Your task to perform on an android device: Show me the alarms in the clock app Image 0: 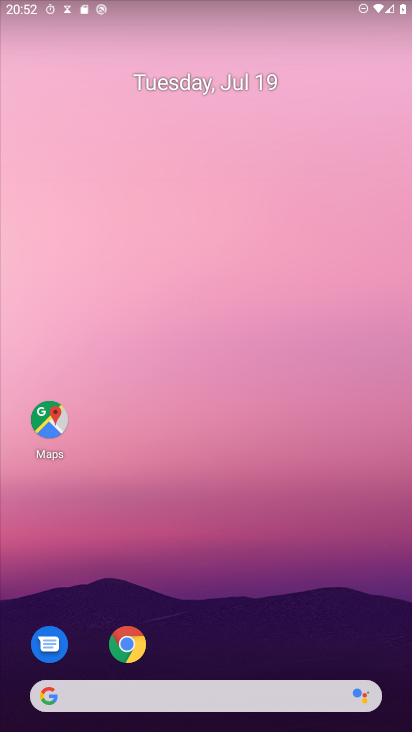
Step 0: drag from (18, 708) to (165, 191)
Your task to perform on an android device: Show me the alarms in the clock app Image 1: 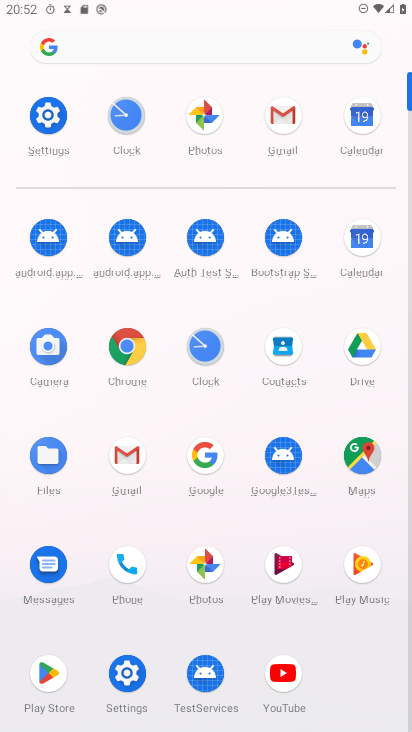
Step 1: click (209, 349)
Your task to perform on an android device: Show me the alarms in the clock app Image 2: 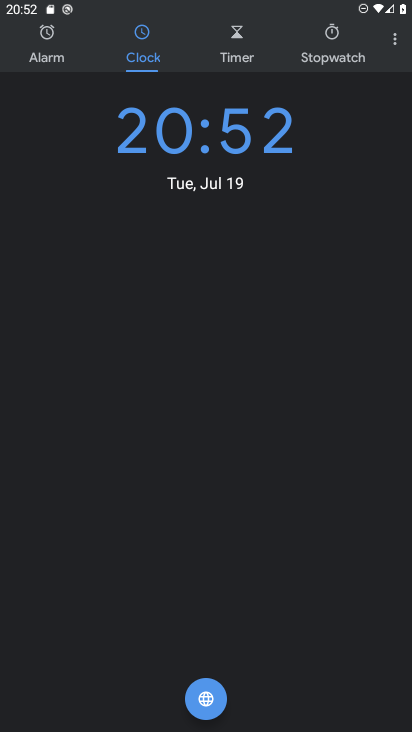
Step 2: click (47, 39)
Your task to perform on an android device: Show me the alarms in the clock app Image 3: 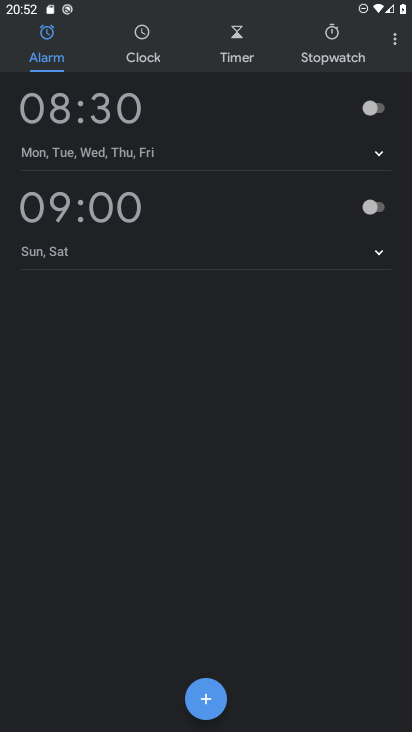
Step 3: task complete